Your task to perform on an android device: add a label to a message in the gmail app Image 0: 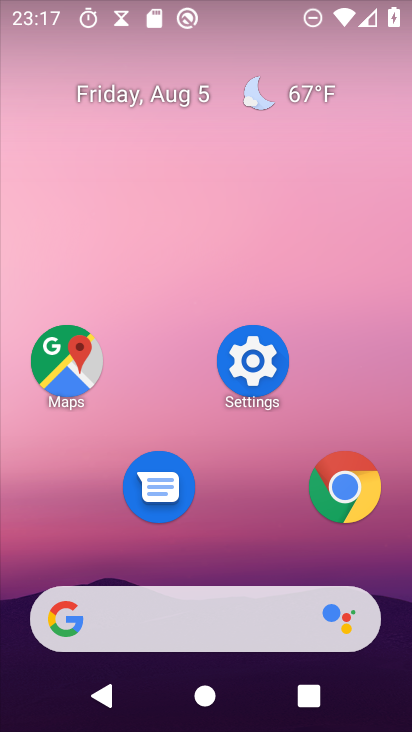
Step 0: press home button
Your task to perform on an android device: add a label to a message in the gmail app Image 1: 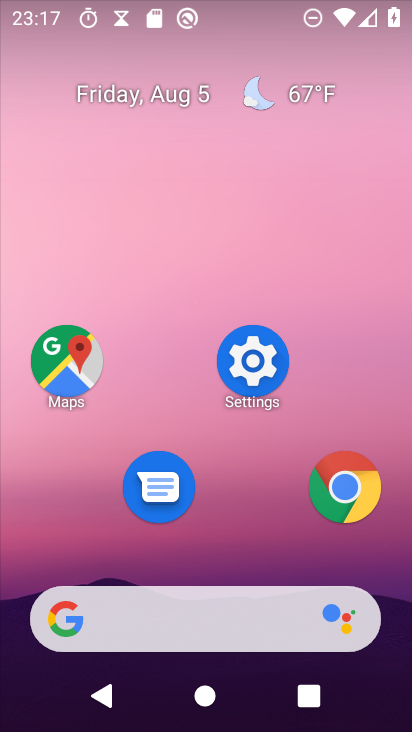
Step 1: drag from (206, 600) to (300, 69)
Your task to perform on an android device: add a label to a message in the gmail app Image 2: 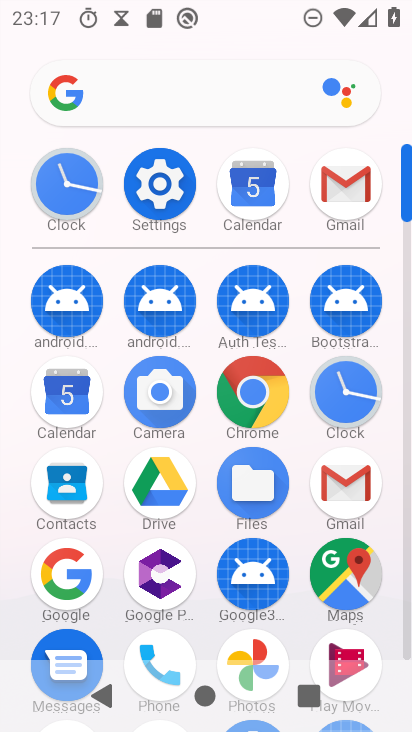
Step 2: click (345, 189)
Your task to perform on an android device: add a label to a message in the gmail app Image 3: 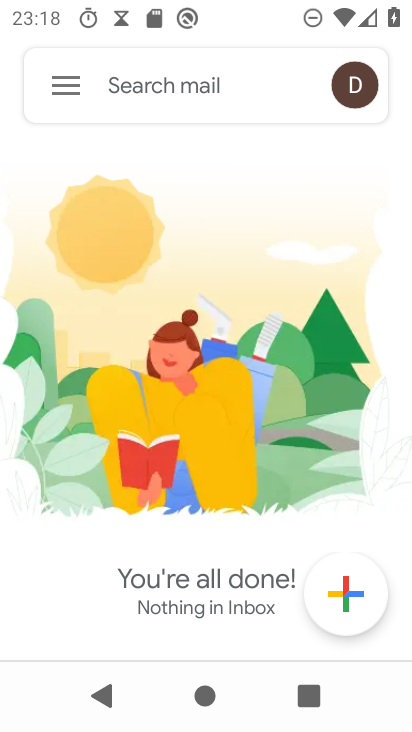
Step 3: task complete